Your task to perform on an android device: Turn on the flashlight Image 0: 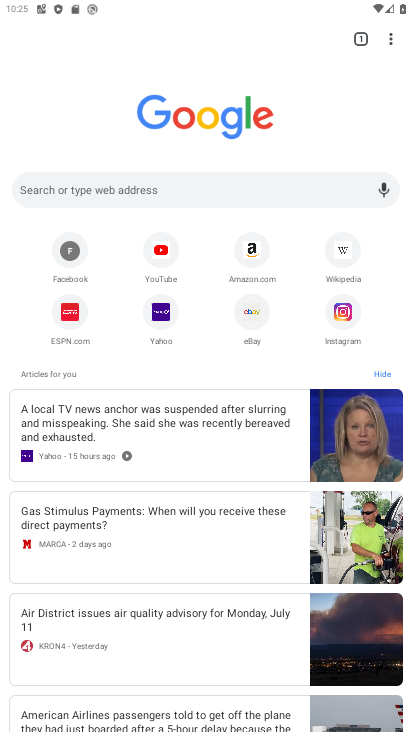
Step 0: press home button
Your task to perform on an android device: Turn on the flashlight Image 1: 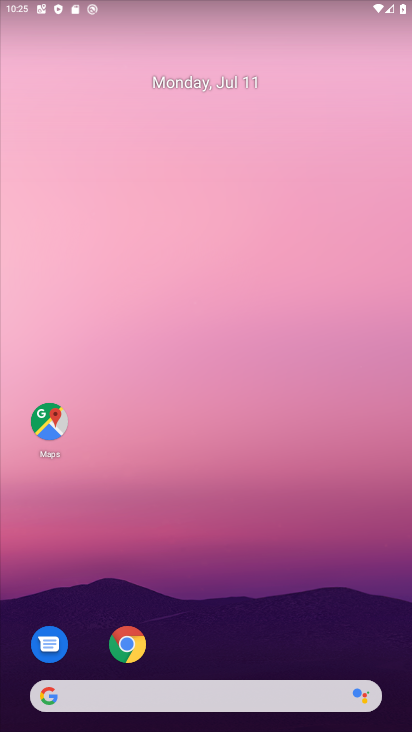
Step 1: task complete